Your task to perform on an android device: turn off airplane mode Image 0: 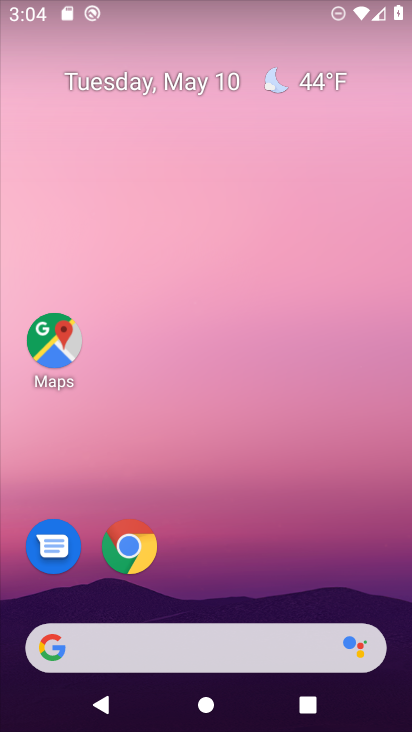
Step 0: drag from (294, 6) to (259, 439)
Your task to perform on an android device: turn off airplane mode Image 1: 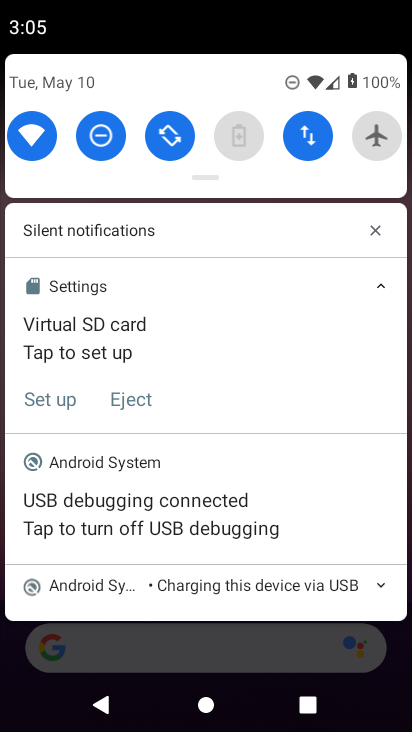
Step 1: task complete